Your task to perform on an android device: Check the news Image 0: 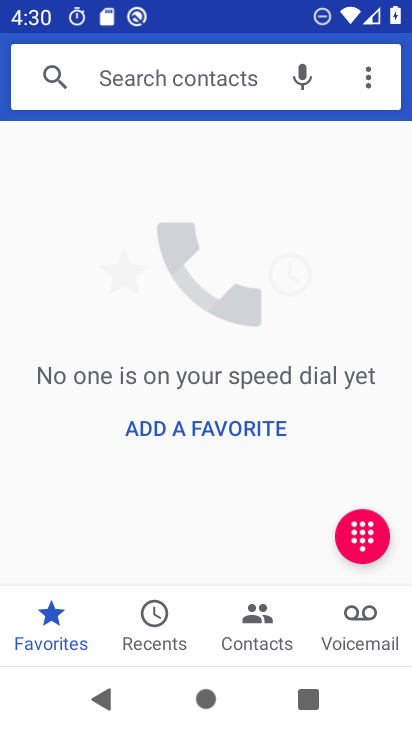
Step 0: press back button
Your task to perform on an android device: Check the news Image 1: 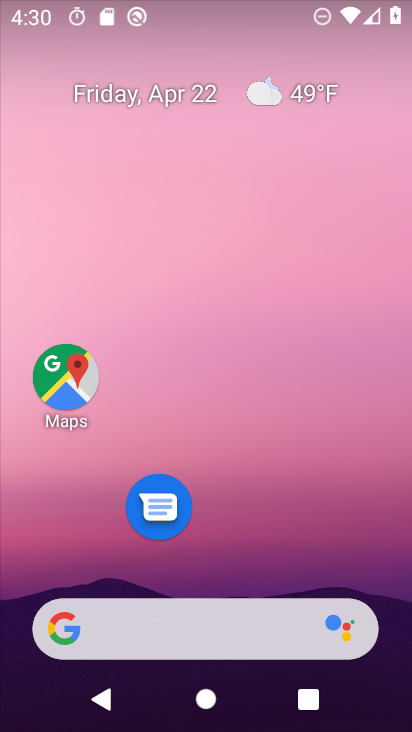
Step 1: click (167, 638)
Your task to perform on an android device: Check the news Image 2: 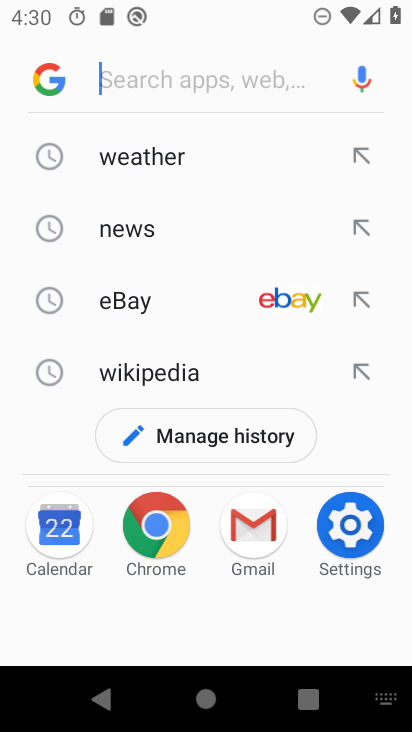
Step 2: click (172, 224)
Your task to perform on an android device: Check the news Image 3: 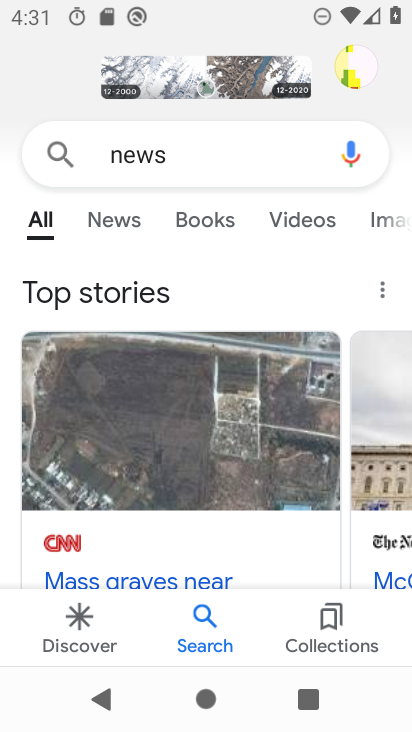
Step 3: task complete